Your task to perform on an android device: clear history in the chrome app Image 0: 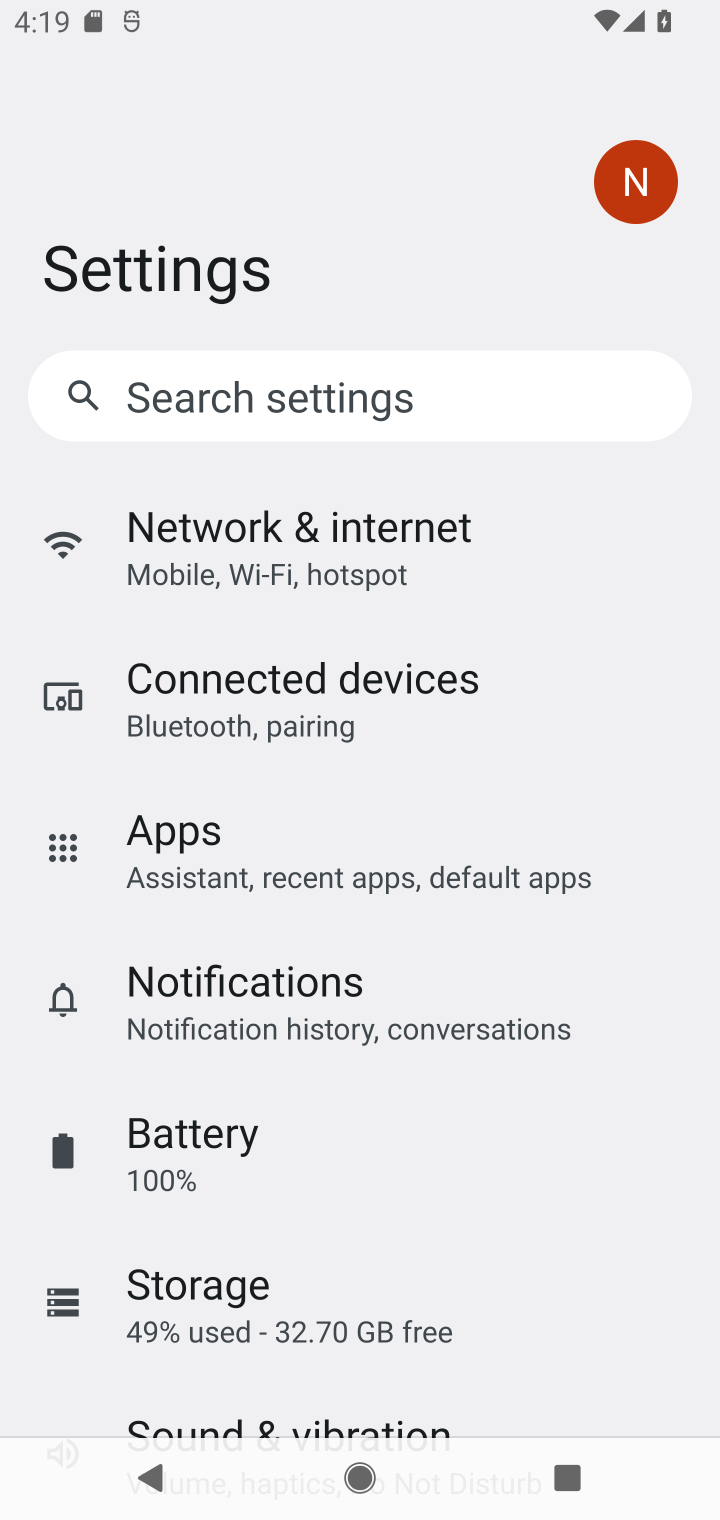
Step 0: press home button
Your task to perform on an android device: clear history in the chrome app Image 1: 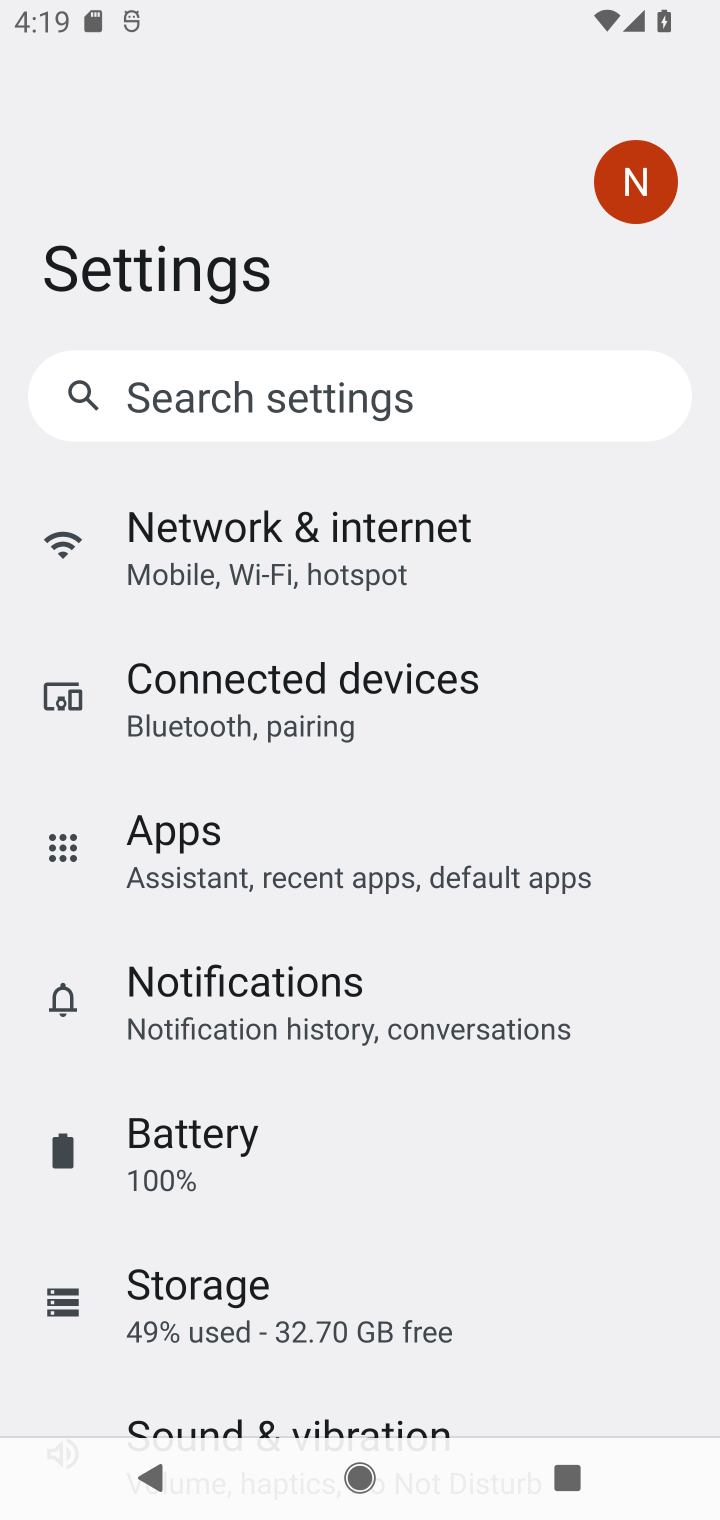
Step 1: press home button
Your task to perform on an android device: clear history in the chrome app Image 2: 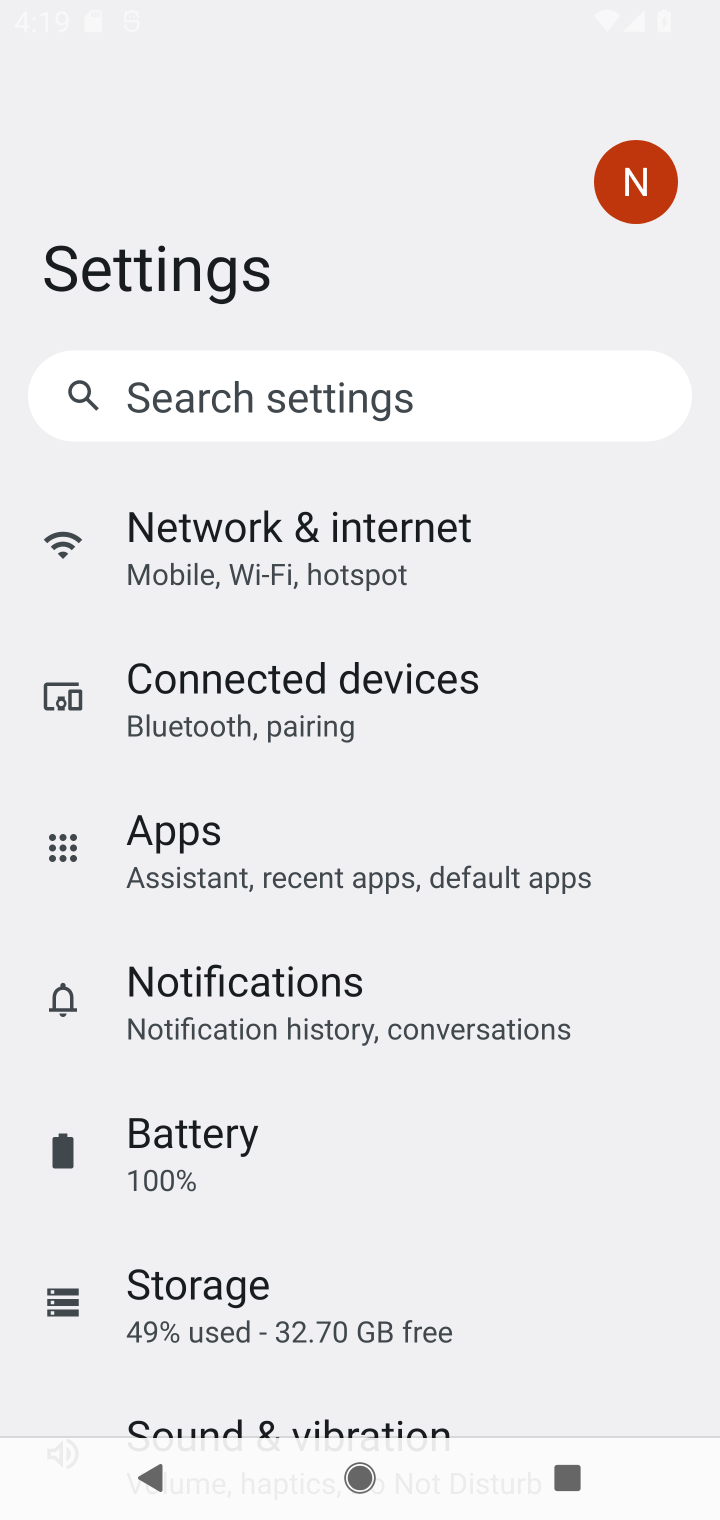
Step 2: press home button
Your task to perform on an android device: clear history in the chrome app Image 3: 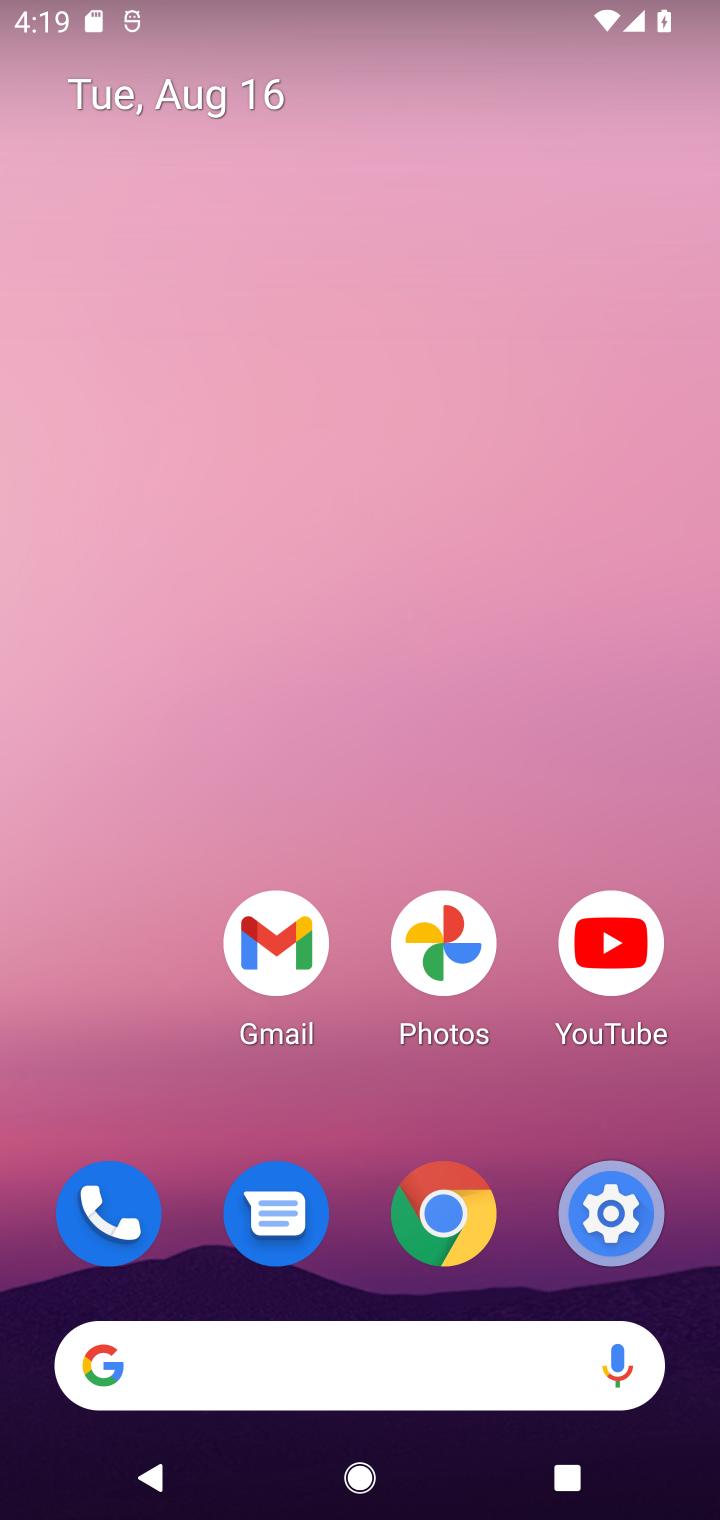
Step 3: drag from (346, 792) to (420, 39)
Your task to perform on an android device: clear history in the chrome app Image 4: 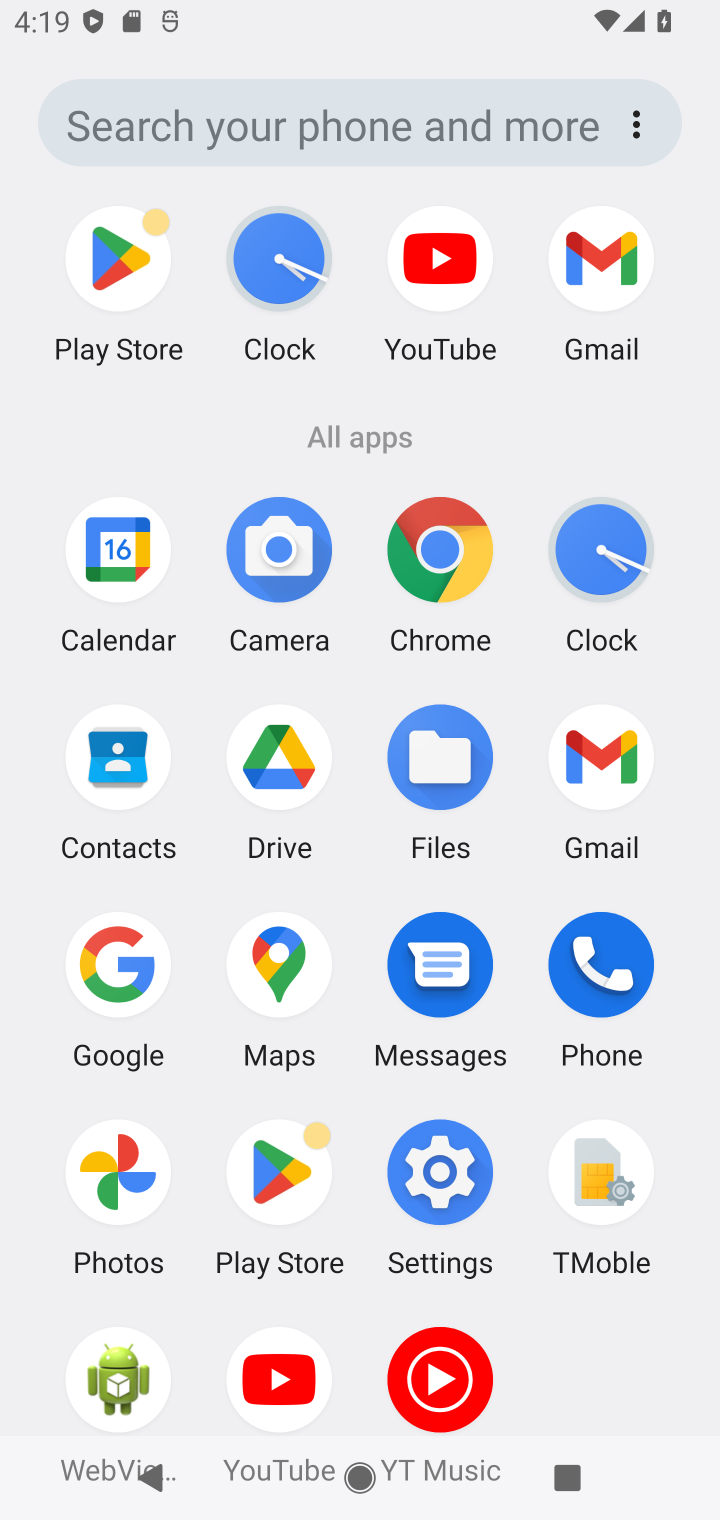
Step 4: click (447, 545)
Your task to perform on an android device: clear history in the chrome app Image 5: 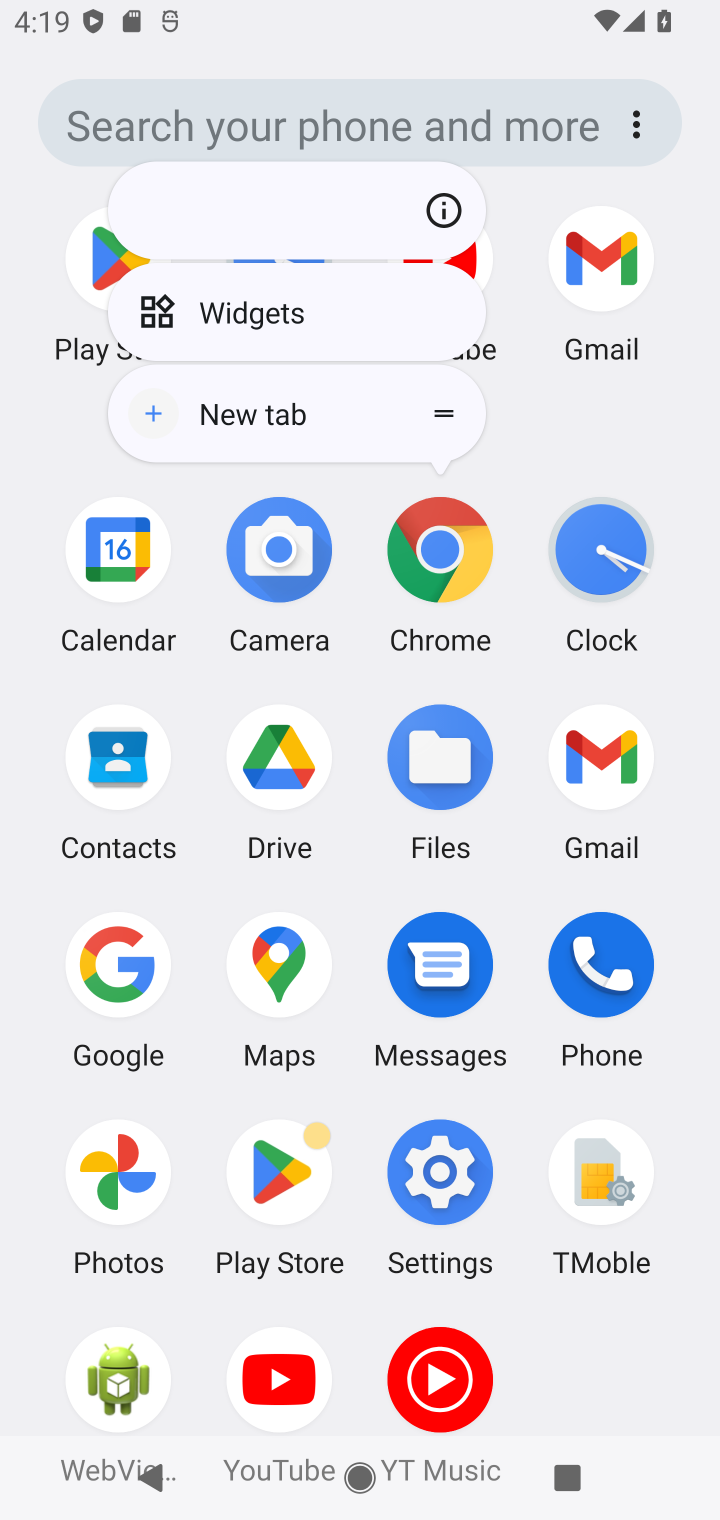
Step 5: click (447, 547)
Your task to perform on an android device: clear history in the chrome app Image 6: 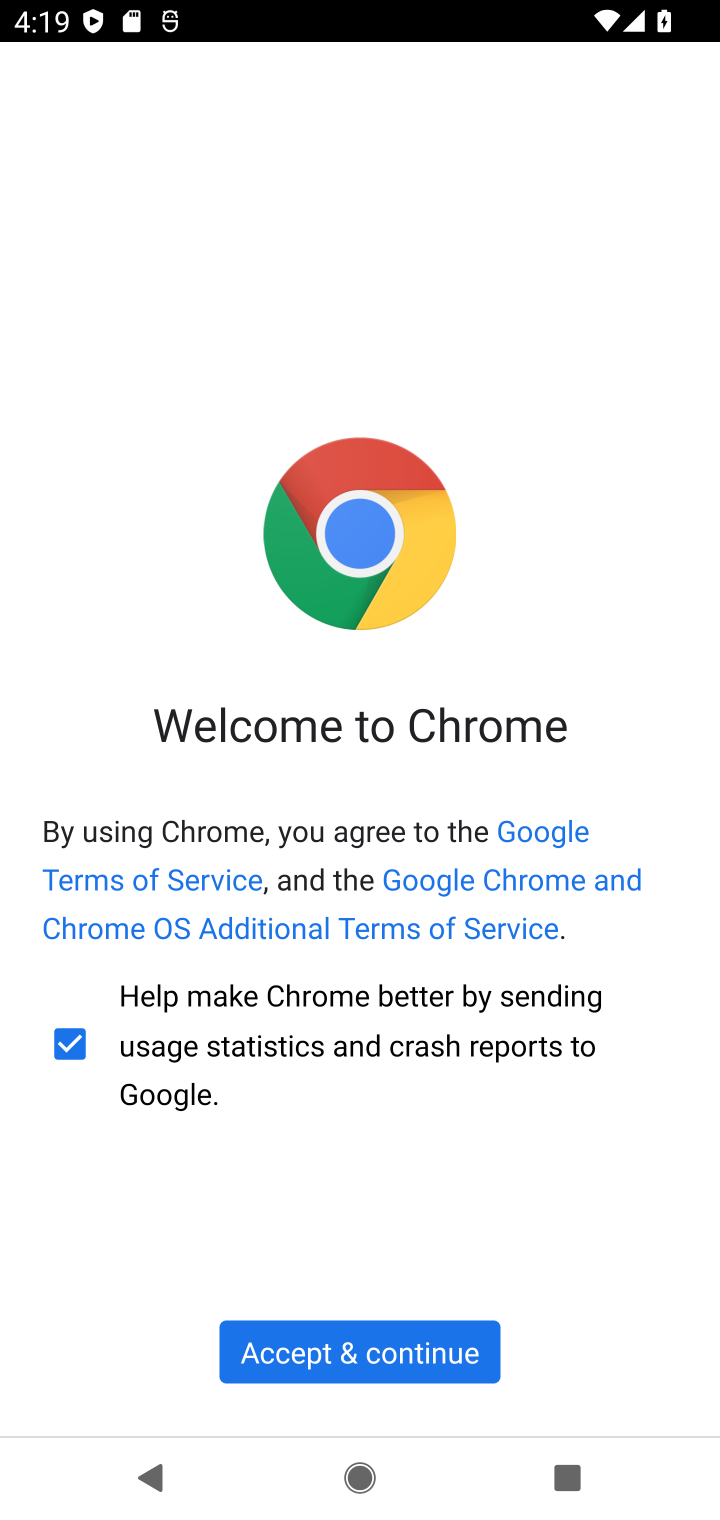
Step 6: click (375, 1360)
Your task to perform on an android device: clear history in the chrome app Image 7: 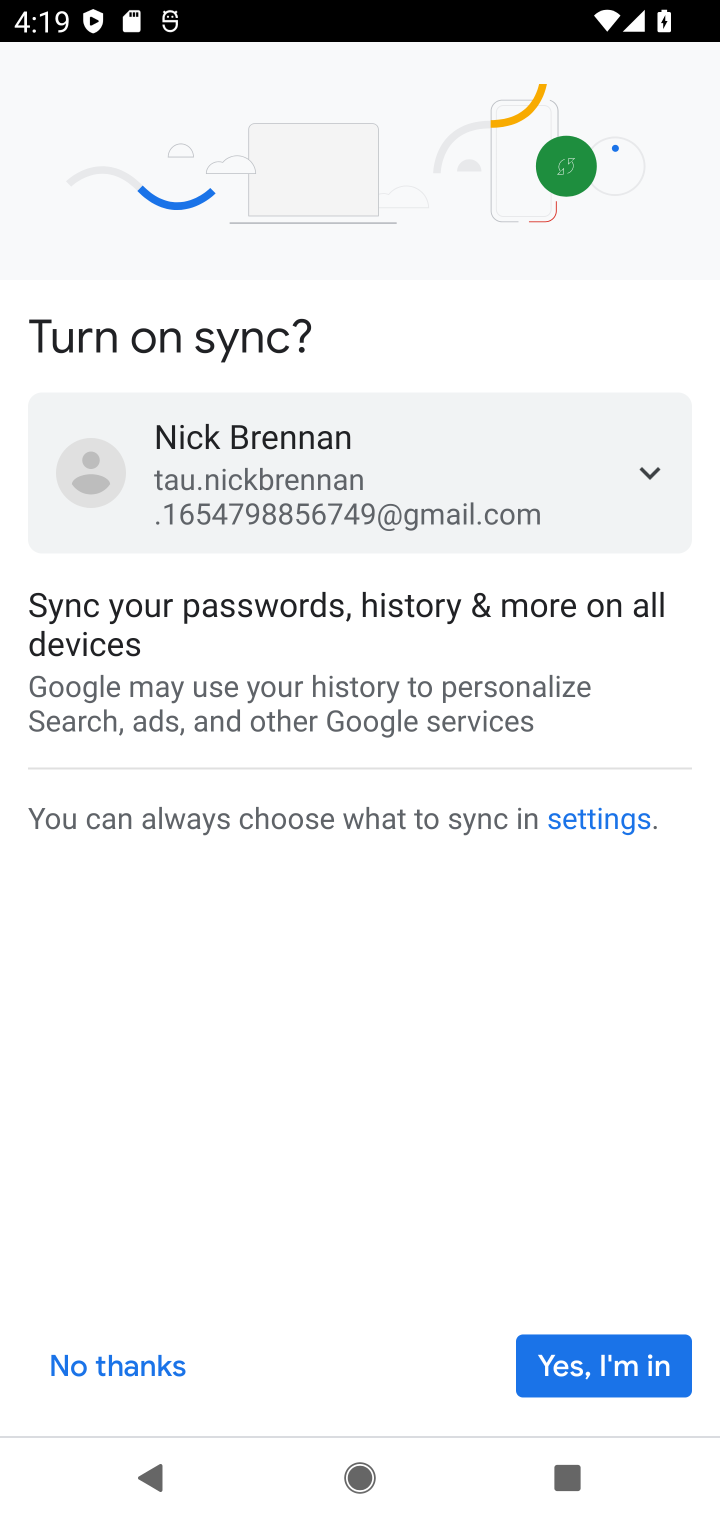
Step 7: click (628, 1373)
Your task to perform on an android device: clear history in the chrome app Image 8: 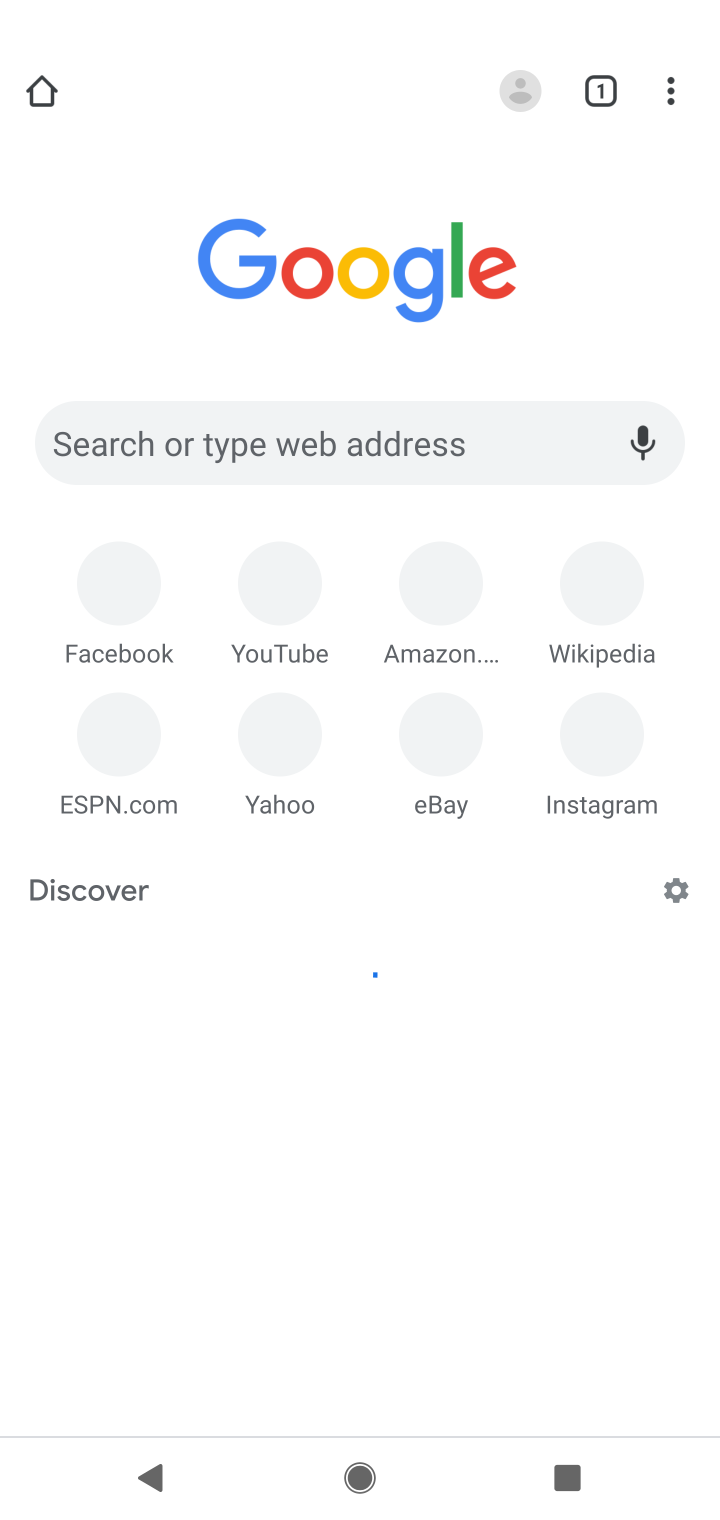
Step 8: click (628, 1371)
Your task to perform on an android device: clear history in the chrome app Image 9: 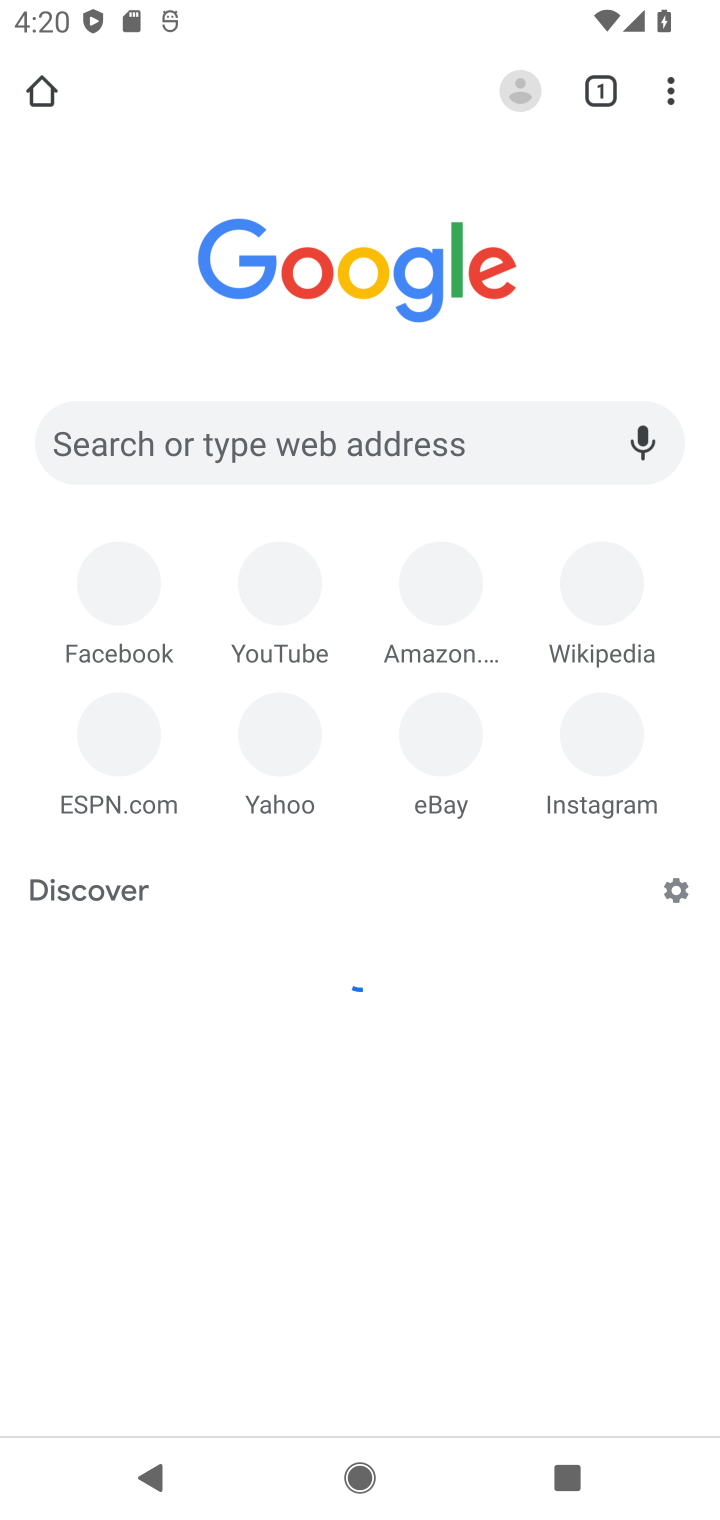
Step 9: drag from (681, 77) to (435, 372)
Your task to perform on an android device: clear history in the chrome app Image 10: 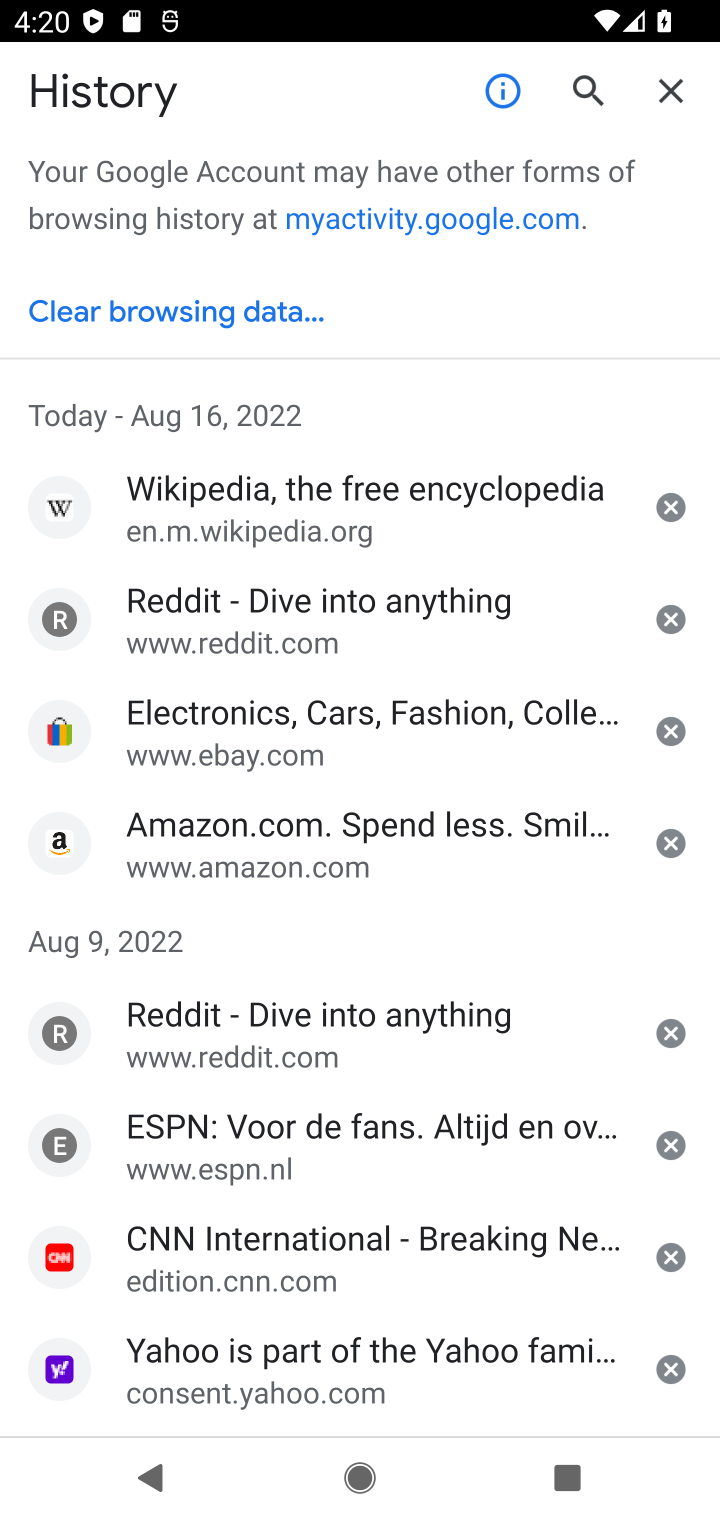
Step 10: click (216, 294)
Your task to perform on an android device: clear history in the chrome app Image 11: 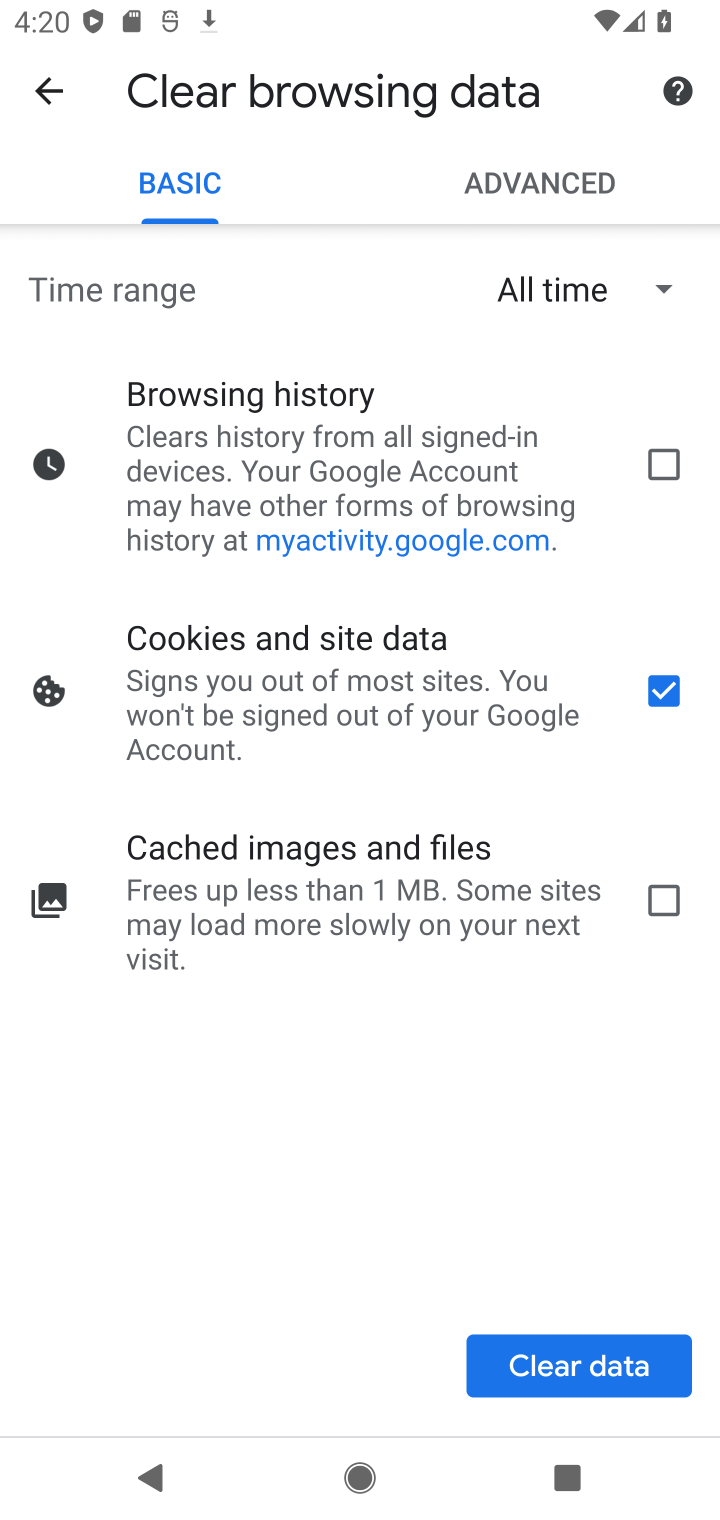
Step 11: click (665, 453)
Your task to perform on an android device: clear history in the chrome app Image 12: 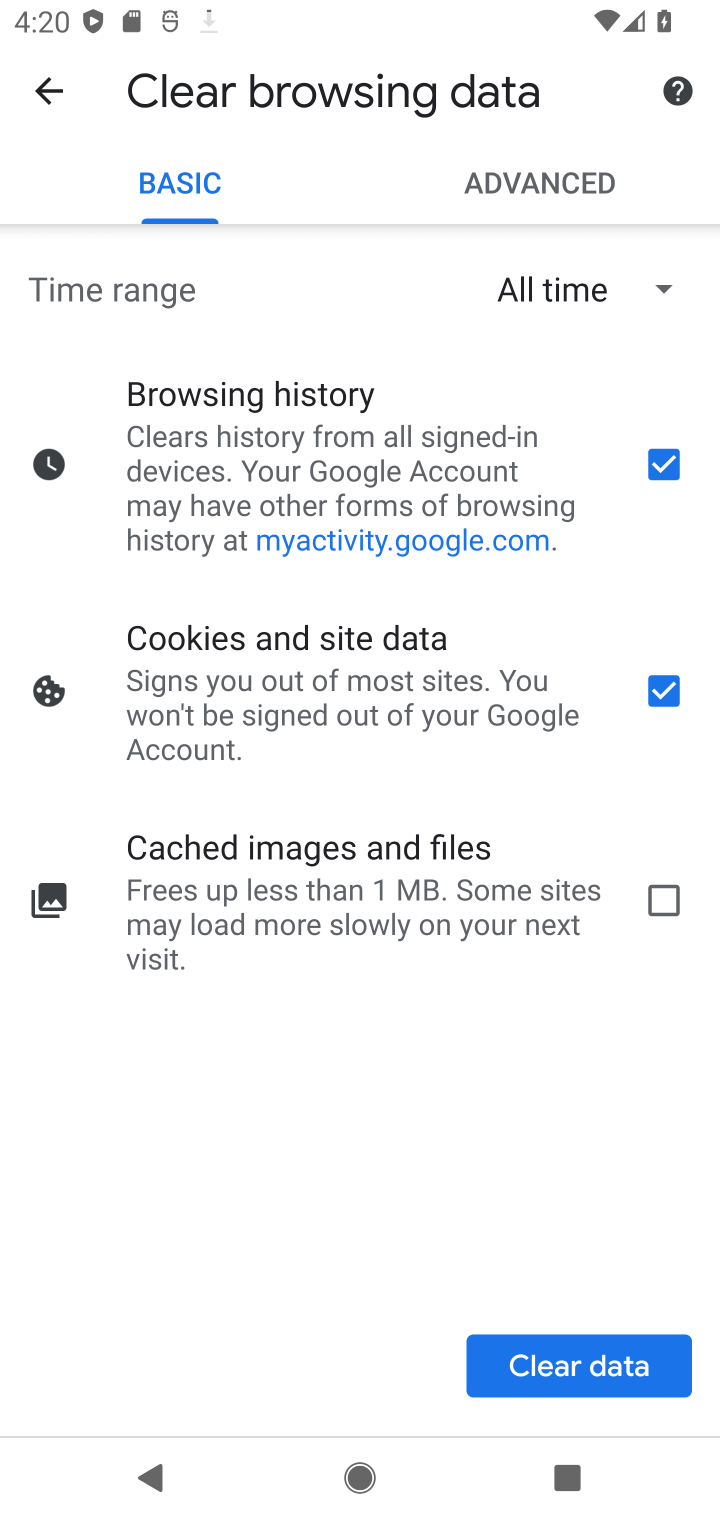
Step 12: click (564, 1350)
Your task to perform on an android device: clear history in the chrome app Image 13: 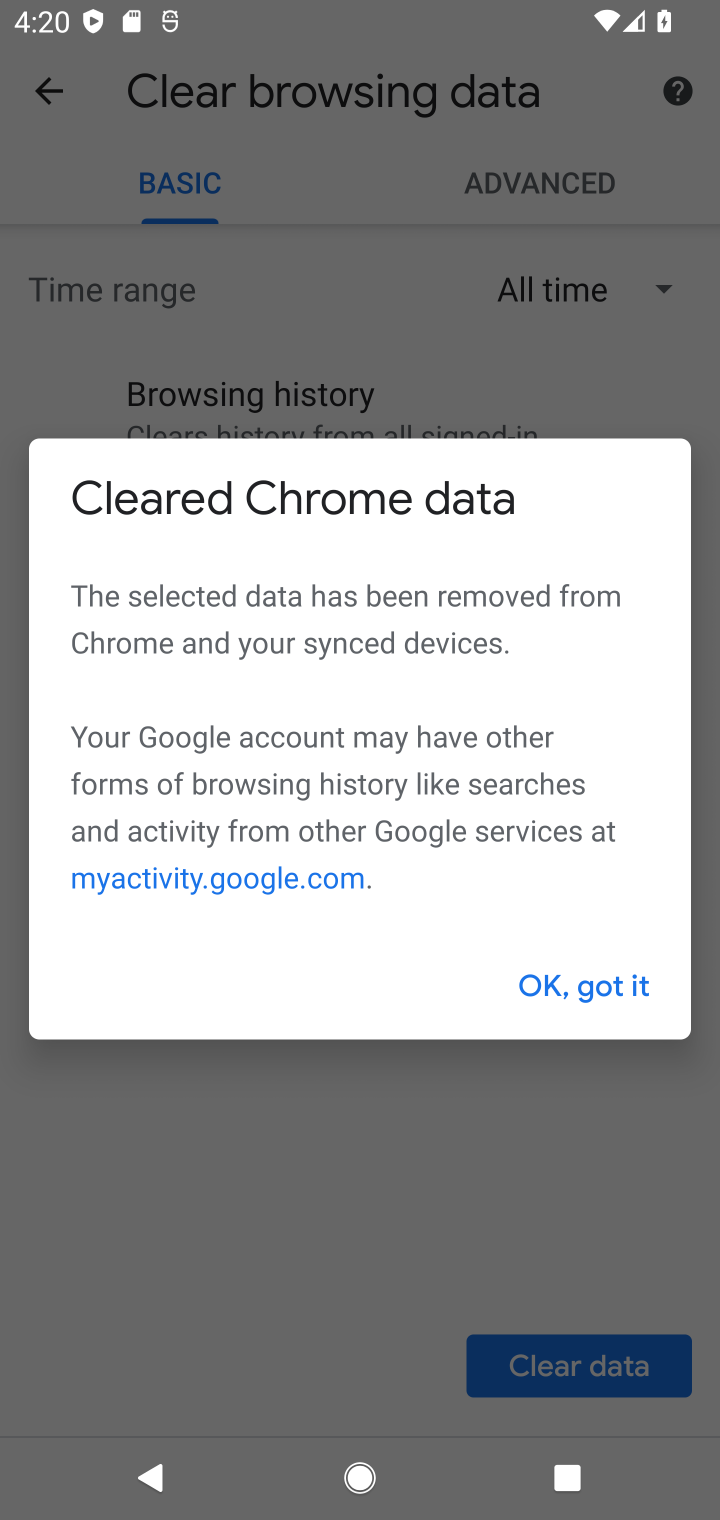
Step 13: click (625, 991)
Your task to perform on an android device: clear history in the chrome app Image 14: 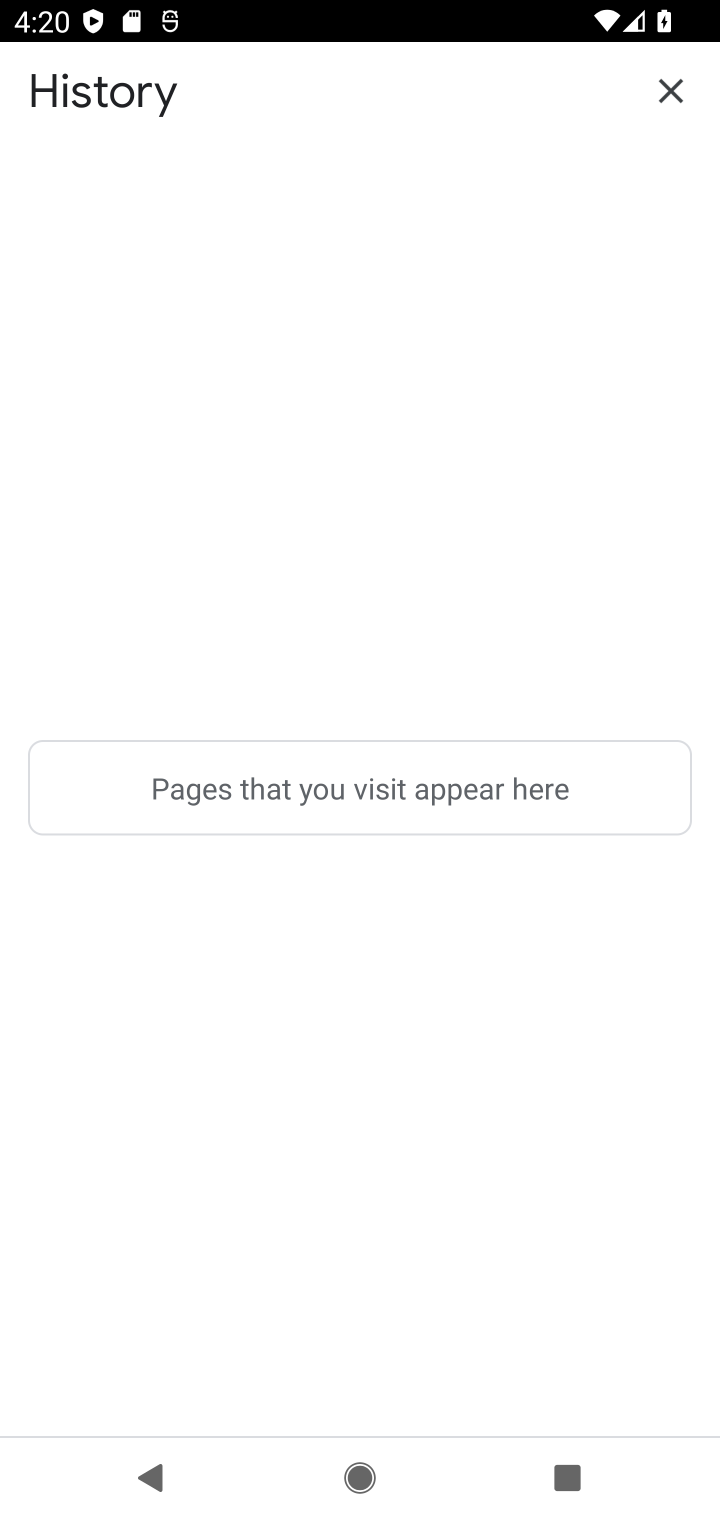
Step 14: task complete